Your task to perform on an android device: empty trash in the gmail app Image 0: 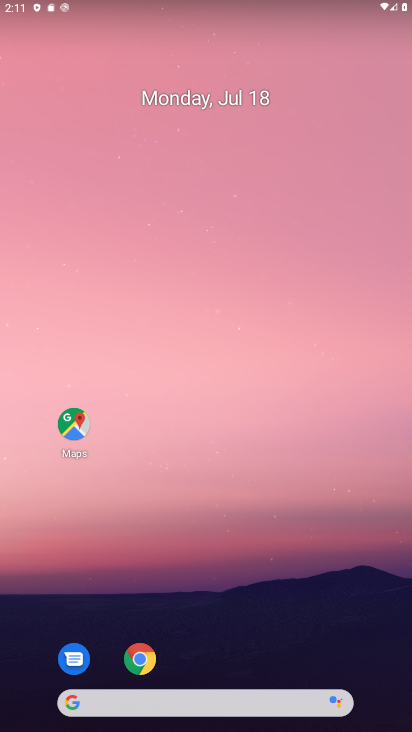
Step 0: drag from (233, 652) to (317, 79)
Your task to perform on an android device: empty trash in the gmail app Image 1: 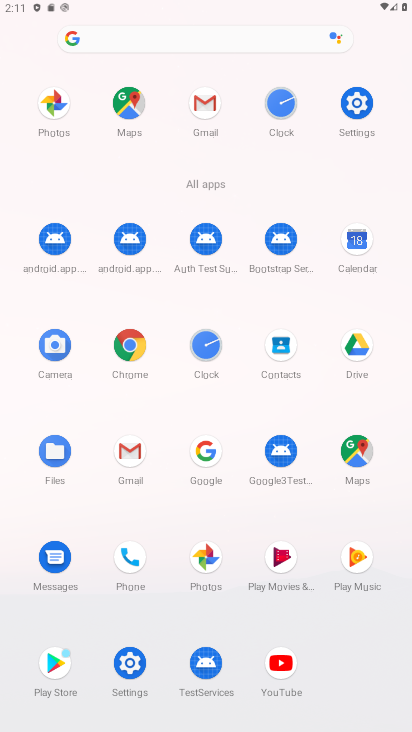
Step 1: click (138, 455)
Your task to perform on an android device: empty trash in the gmail app Image 2: 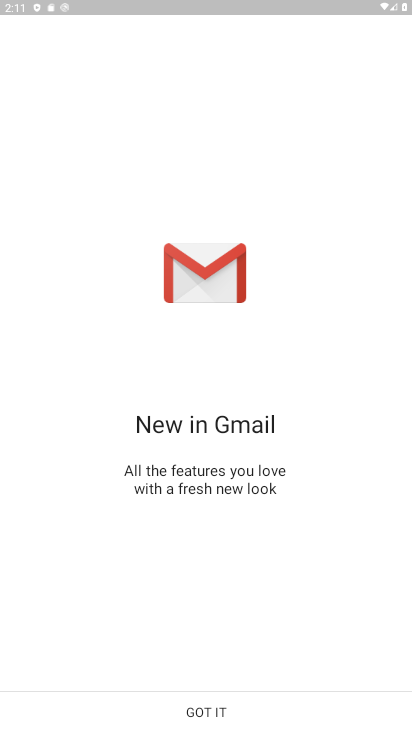
Step 2: click (242, 711)
Your task to perform on an android device: empty trash in the gmail app Image 3: 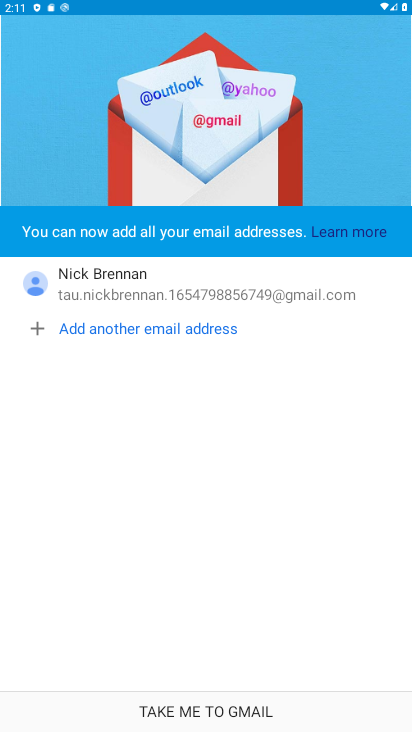
Step 3: click (242, 711)
Your task to perform on an android device: empty trash in the gmail app Image 4: 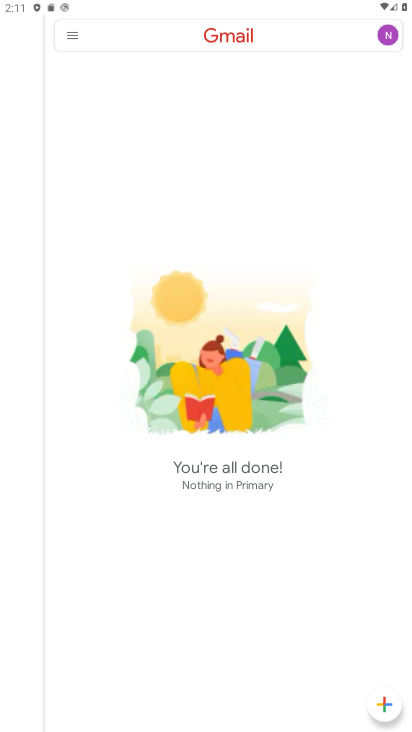
Step 4: click (35, 41)
Your task to perform on an android device: empty trash in the gmail app Image 5: 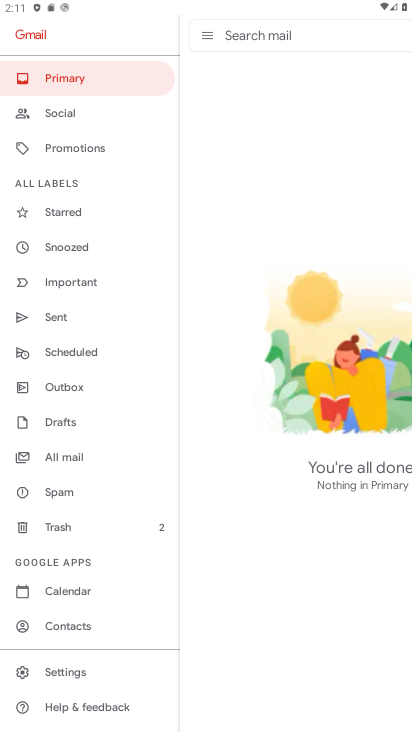
Step 5: drag from (72, 647) to (131, 259)
Your task to perform on an android device: empty trash in the gmail app Image 6: 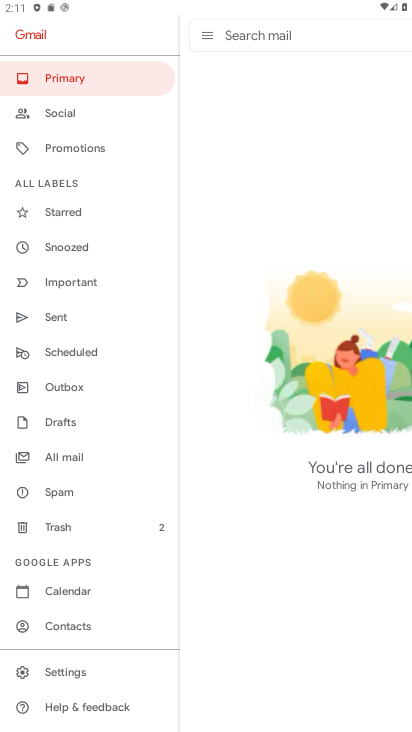
Step 6: click (96, 529)
Your task to perform on an android device: empty trash in the gmail app Image 7: 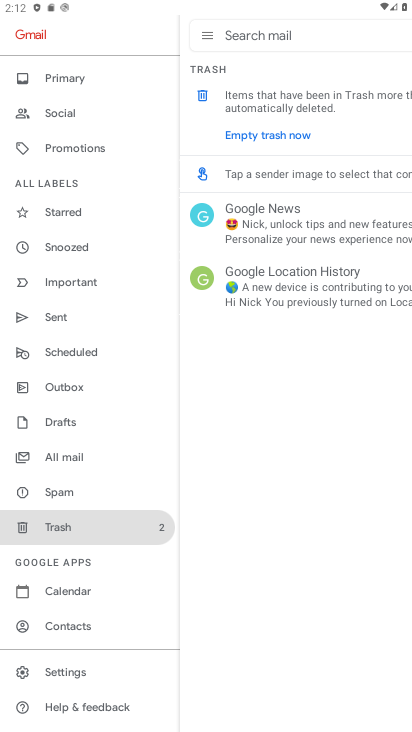
Step 7: click (265, 131)
Your task to perform on an android device: empty trash in the gmail app Image 8: 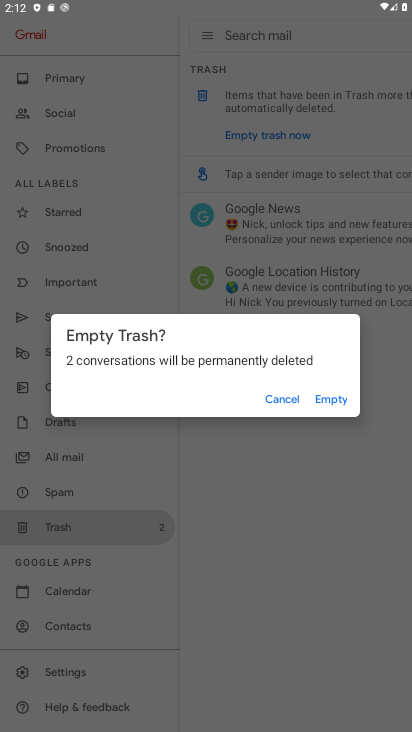
Step 8: click (325, 402)
Your task to perform on an android device: empty trash in the gmail app Image 9: 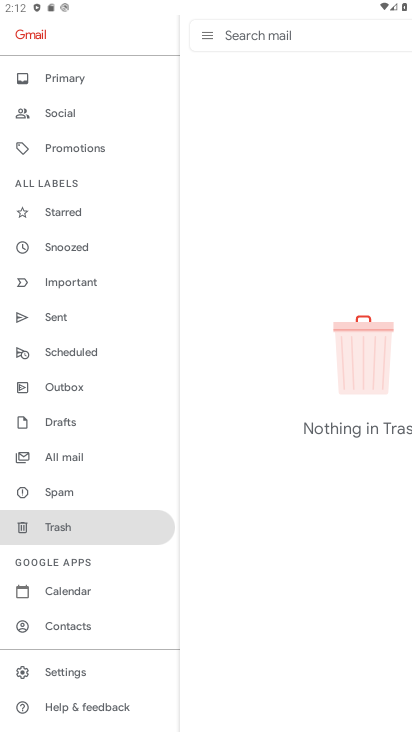
Step 9: task complete